Your task to perform on an android device: change keyboard looks Image 0: 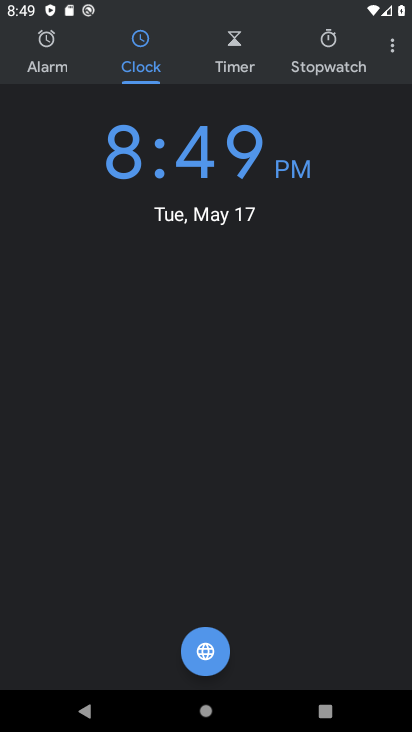
Step 0: press home button
Your task to perform on an android device: change keyboard looks Image 1: 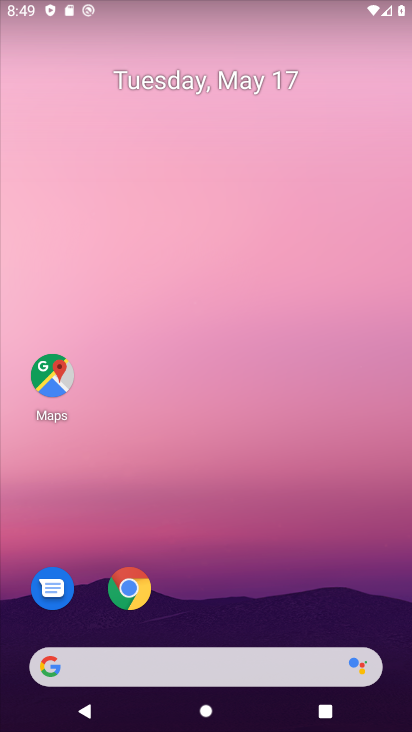
Step 1: drag from (385, 553) to (387, 296)
Your task to perform on an android device: change keyboard looks Image 2: 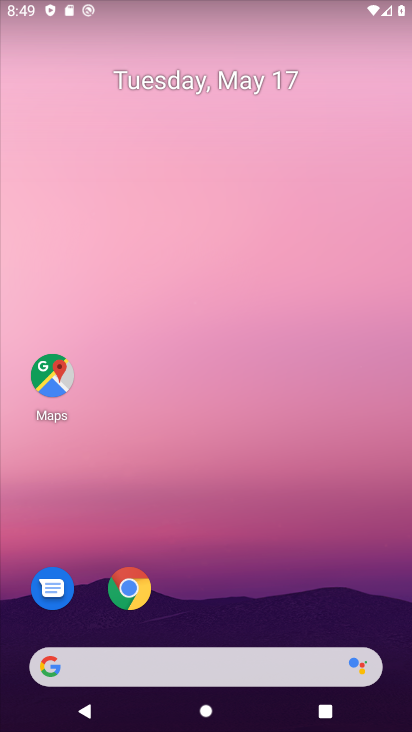
Step 2: drag from (336, 563) to (296, 81)
Your task to perform on an android device: change keyboard looks Image 3: 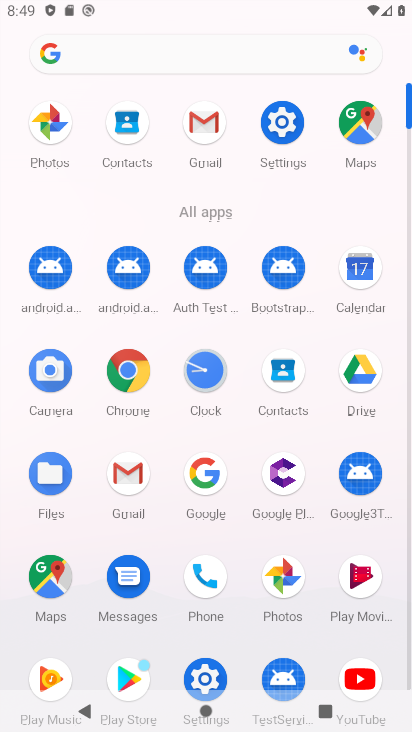
Step 3: click (278, 117)
Your task to perform on an android device: change keyboard looks Image 4: 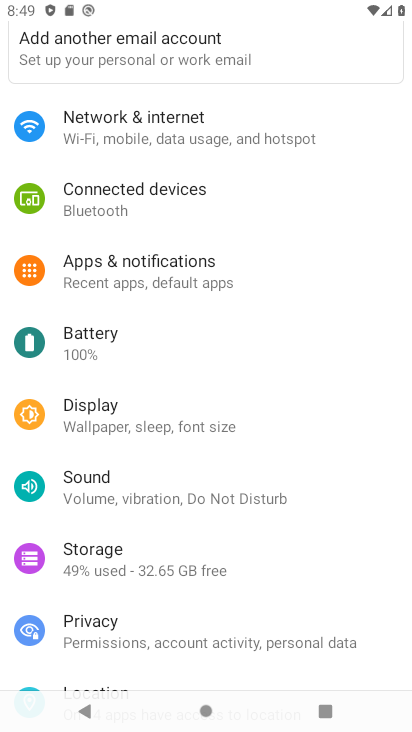
Step 4: drag from (361, 660) to (312, 182)
Your task to perform on an android device: change keyboard looks Image 5: 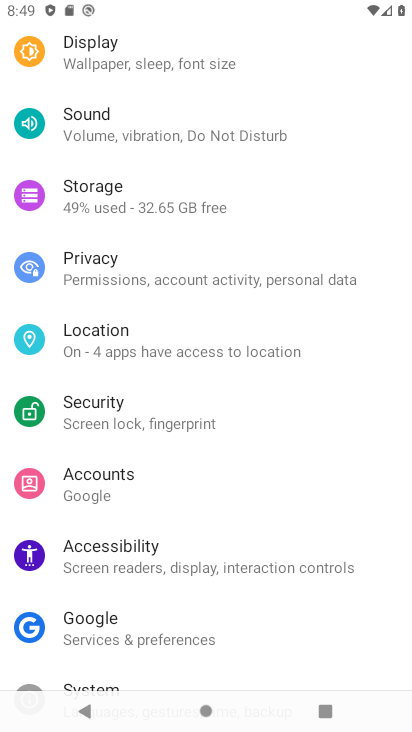
Step 5: drag from (359, 622) to (320, 364)
Your task to perform on an android device: change keyboard looks Image 6: 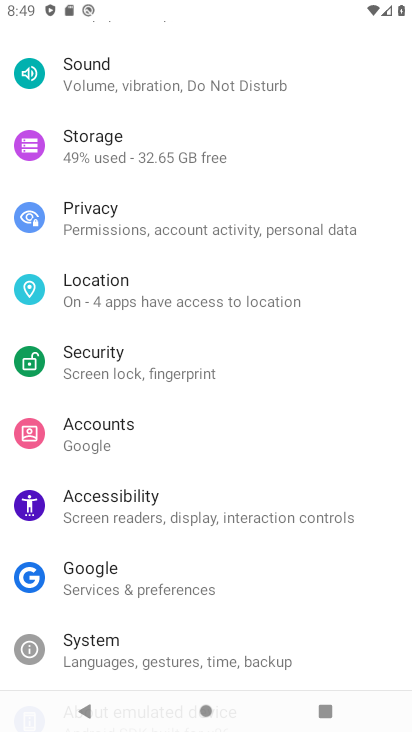
Step 6: click (96, 647)
Your task to perform on an android device: change keyboard looks Image 7: 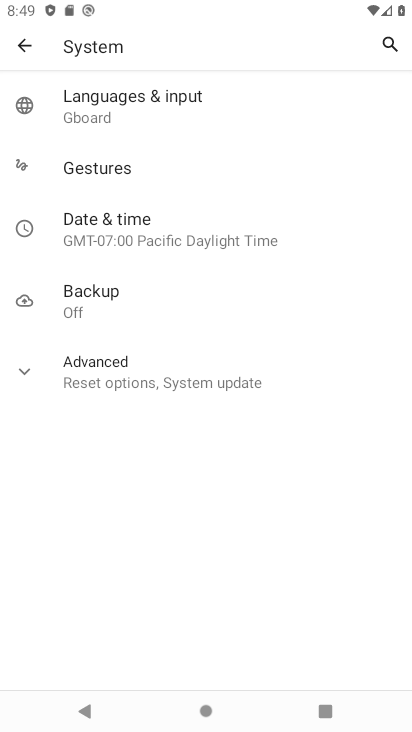
Step 7: click (76, 101)
Your task to perform on an android device: change keyboard looks Image 8: 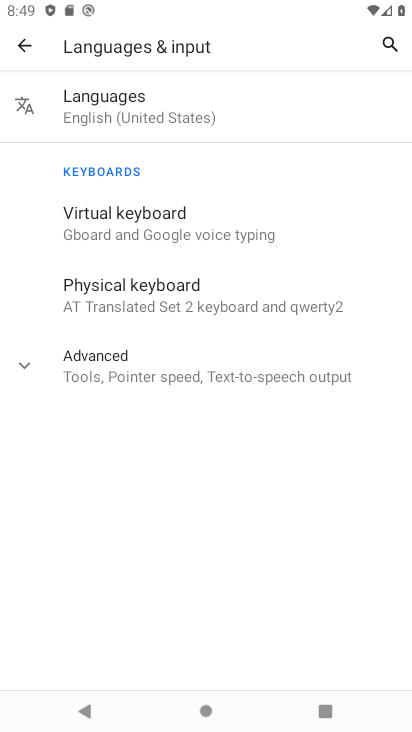
Step 8: click (107, 216)
Your task to perform on an android device: change keyboard looks Image 9: 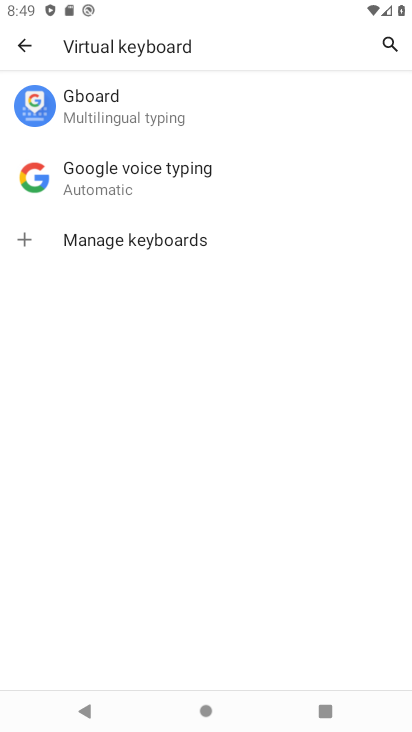
Step 9: click (97, 109)
Your task to perform on an android device: change keyboard looks Image 10: 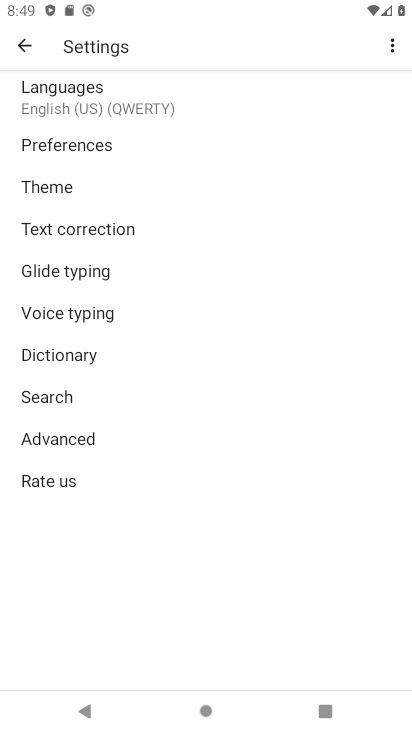
Step 10: click (32, 189)
Your task to perform on an android device: change keyboard looks Image 11: 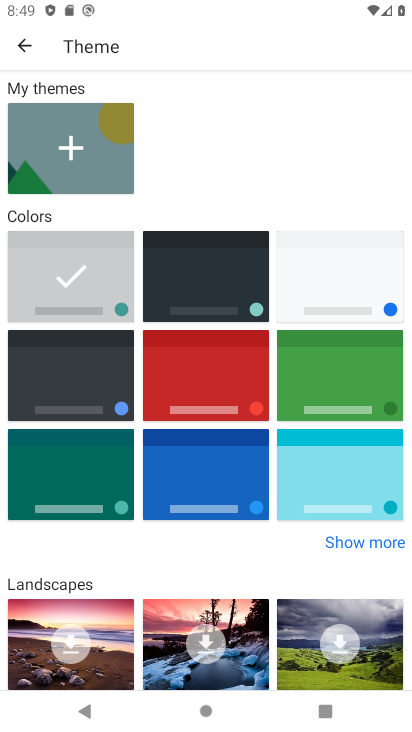
Step 11: click (180, 369)
Your task to perform on an android device: change keyboard looks Image 12: 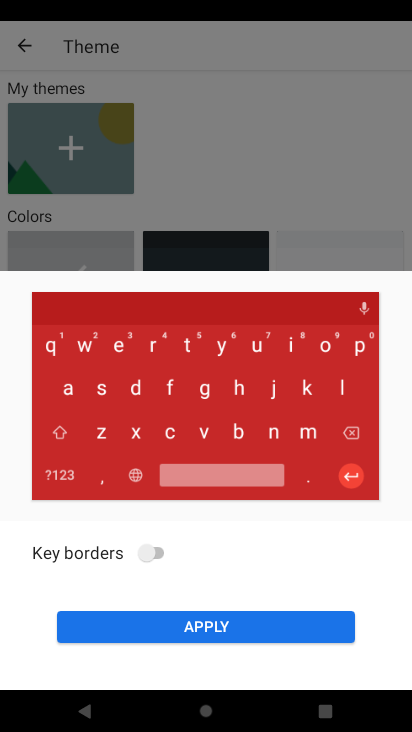
Step 12: click (158, 549)
Your task to perform on an android device: change keyboard looks Image 13: 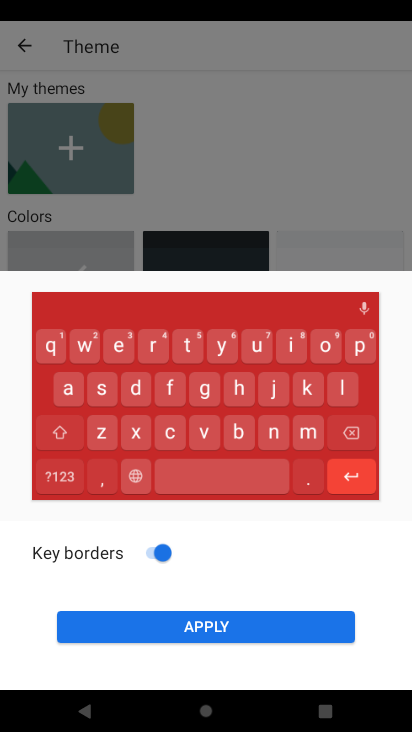
Step 13: click (203, 630)
Your task to perform on an android device: change keyboard looks Image 14: 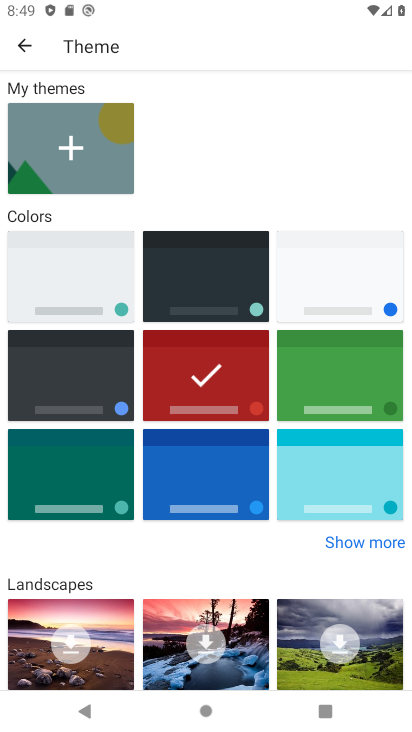
Step 14: task complete